Your task to perform on an android device: toggle notification dots Image 0: 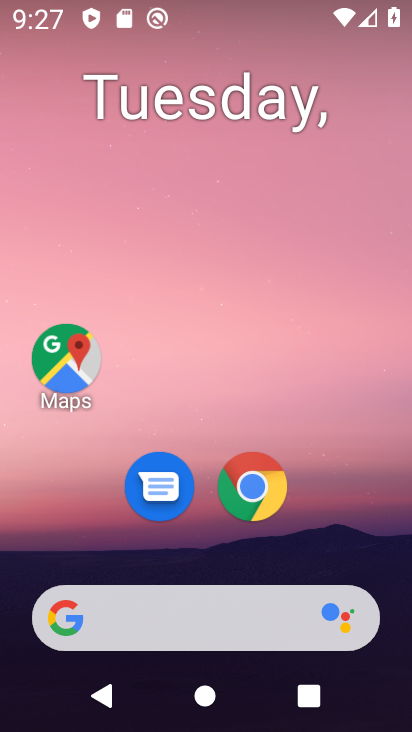
Step 0: drag from (349, 519) to (356, 78)
Your task to perform on an android device: toggle notification dots Image 1: 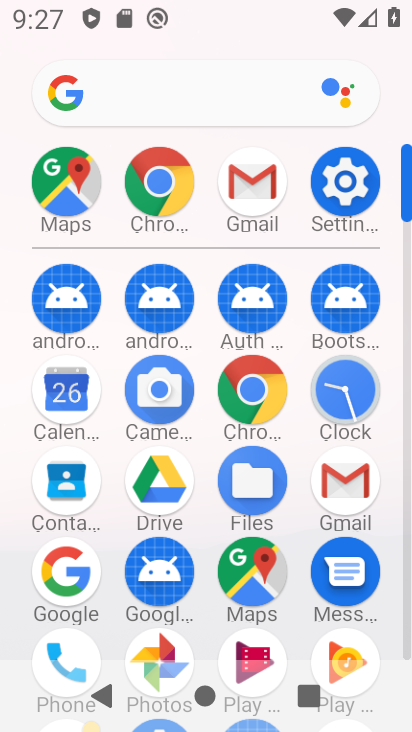
Step 1: click (346, 189)
Your task to perform on an android device: toggle notification dots Image 2: 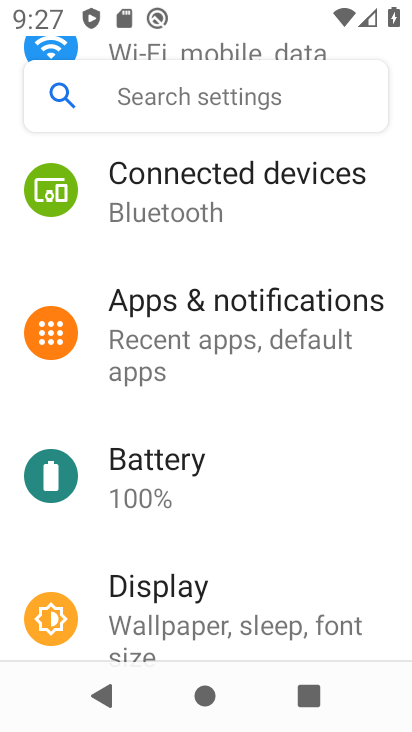
Step 2: drag from (372, 236) to (362, 312)
Your task to perform on an android device: toggle notification dots Image 3: 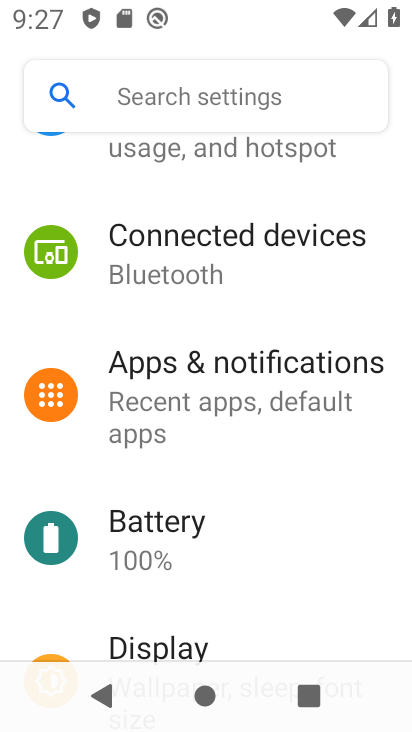
Step 3: drag from (374, 216) to (363, 336)
Your task to perform on an android device: toggle notification dots Image 4: 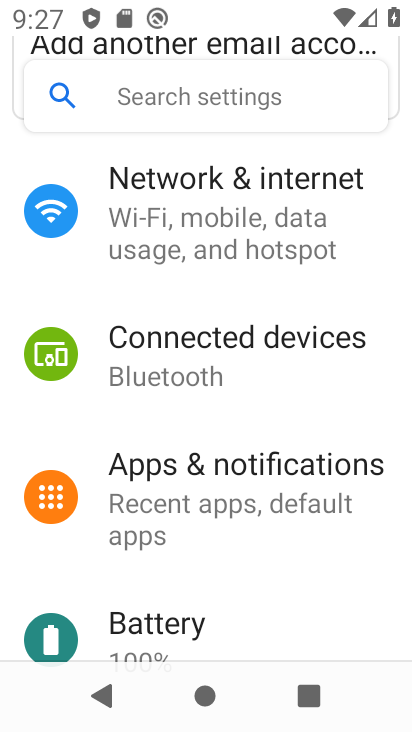
Step 4: drag from (364, 291) to (354, 381)
Your task to perform on an android device: toggle notification dots Image 5: 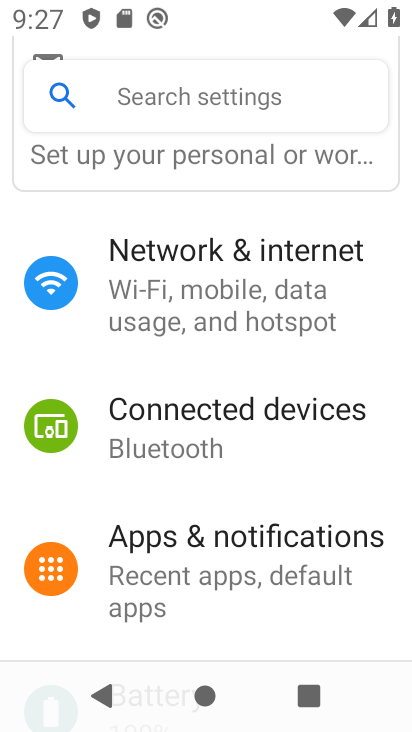
Step 5: click (262, 557)
Your task to perform on an android device: toggle notification dots Image 6: 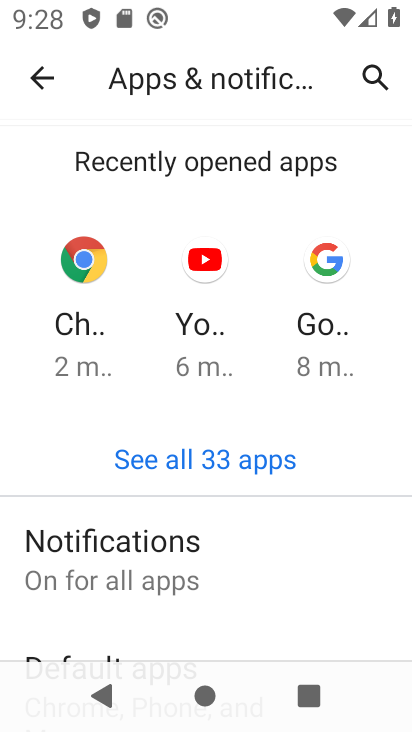
Step 6: drag from (293, 599) to (298, 512)
Your task to perform on an android device: toggle notification dots Image 7: 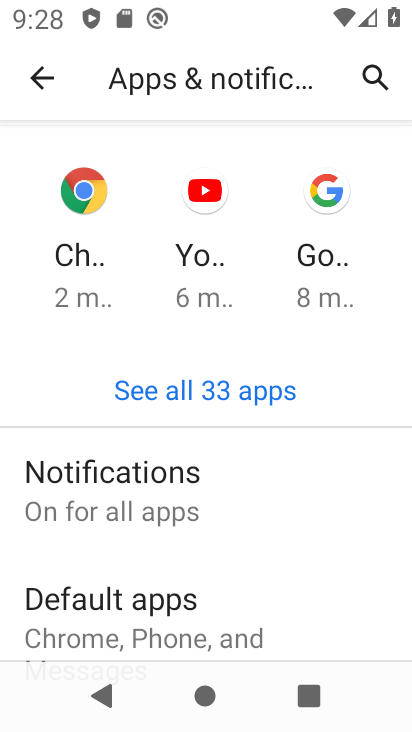
Step 7: click (248, 501)
Your task to perform on an android device: toggle notification dots Image 8: 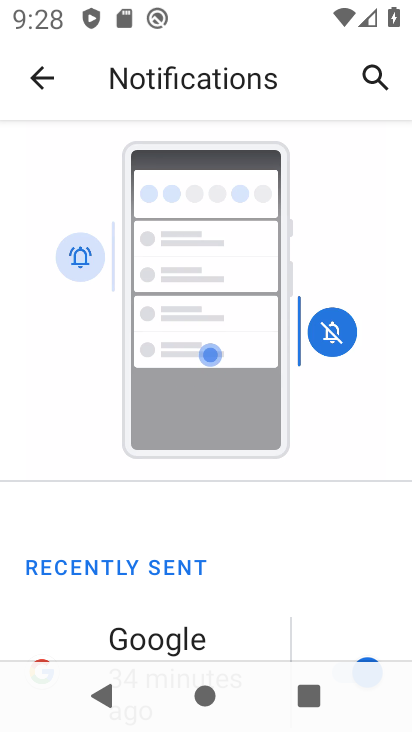
Step 8: drag from (248, 551) to (252, 467)
Your task to perform on an android device: toggle notification dots Image 9: 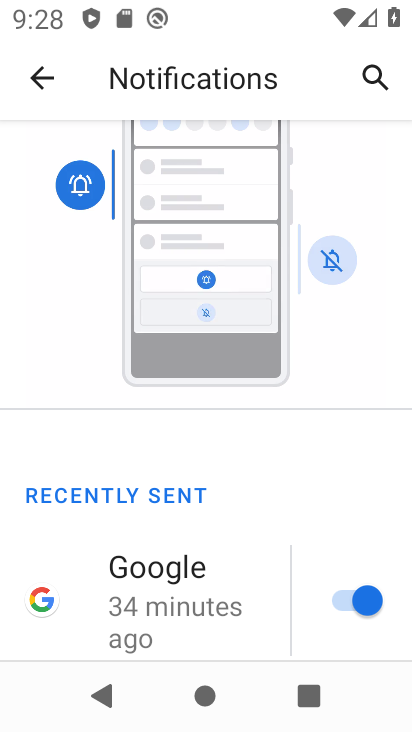
Step 9: drag from (235, 583) to (240, 485)
Your task to perform on an android device: toggle notification dots Image 10: 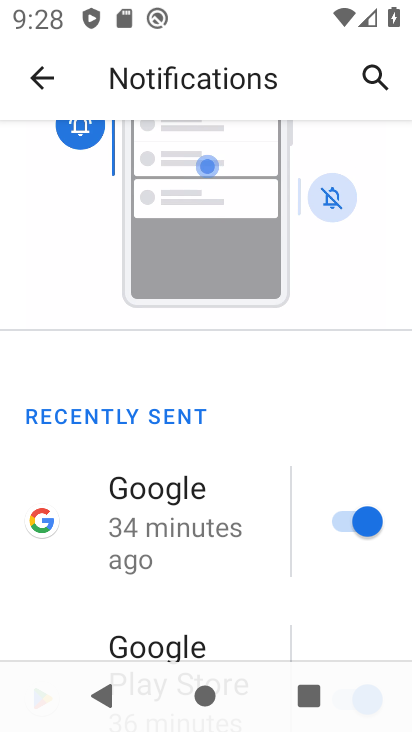
Step 10: click (222, 572)
Your task to perform on an android device: toggle notification dots Image 11: 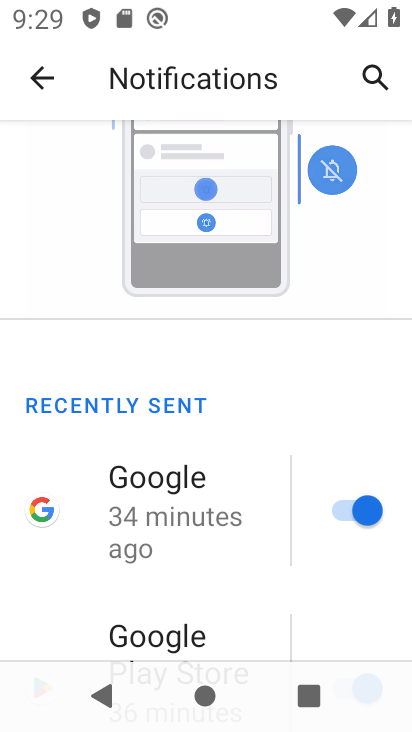
Step 11: drag from (273, 645) to (266, 430)
Your task to perform on an android device: toggle notification dots Image 12: 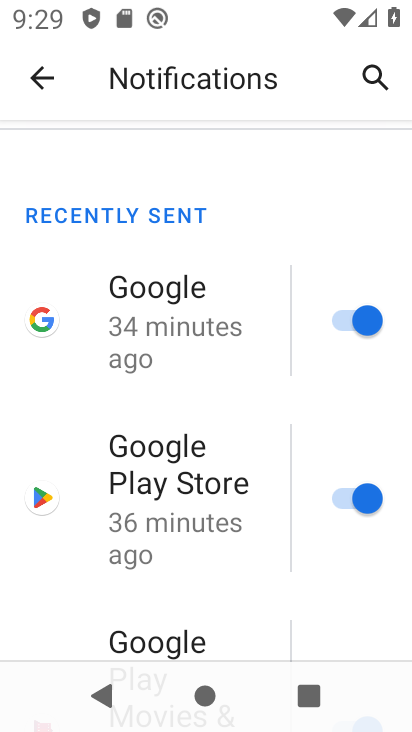
Step 12: drag from (256, 604) to (246, 421)
Your task to perform on an android device: toggle notification dots Image 13: 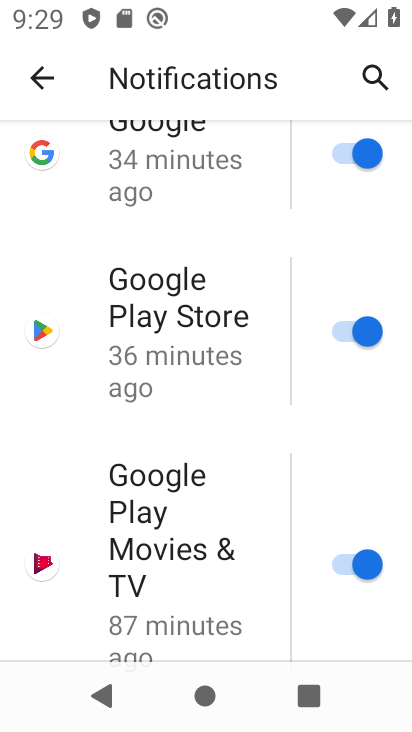
Step 13: drag from (227, 590) to (229, 427)
Your task to perform on an android device: toggle notification dots Image 14: 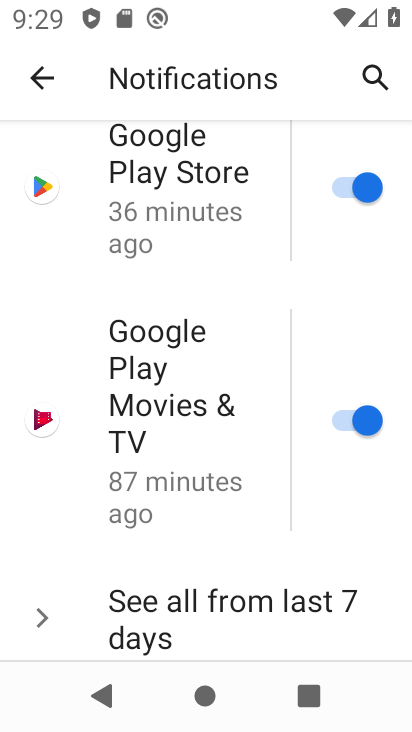
Step 14: drag from (224, 583) to (224, 421)
Your task to perform on an android device: toggle notification dots Image 15: 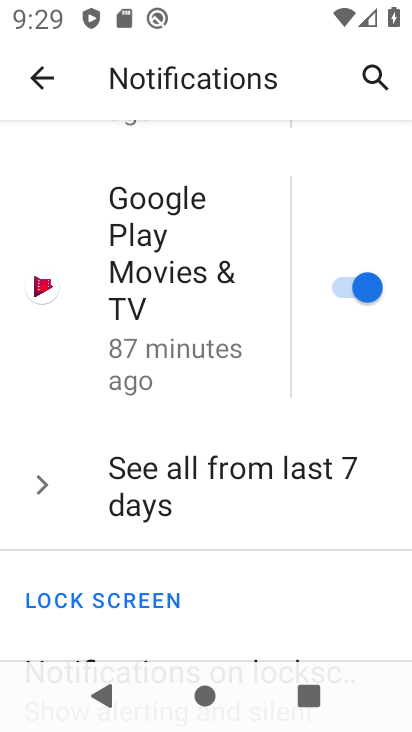
Step 15: drag from (203, 517) to (203, 417)
Your task to perform on an android device: toggle notification dots Image 16: 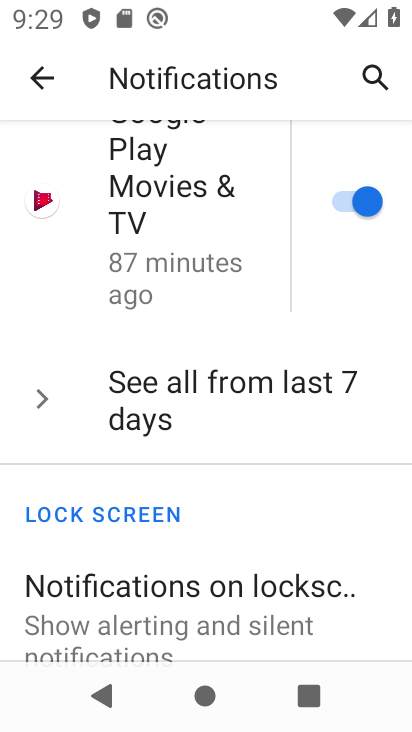
Step 16: drag from (197, 615) to (202, 528)
Your task to perform on an android device: toggle notification dots Image 17: 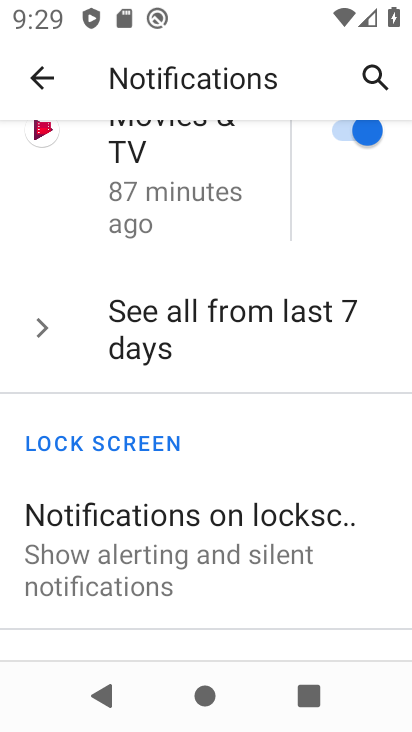
Step 17: drag from (257, 583) to (264, 384)
Your task to perform on an android device: toggle notification dots Image 18: 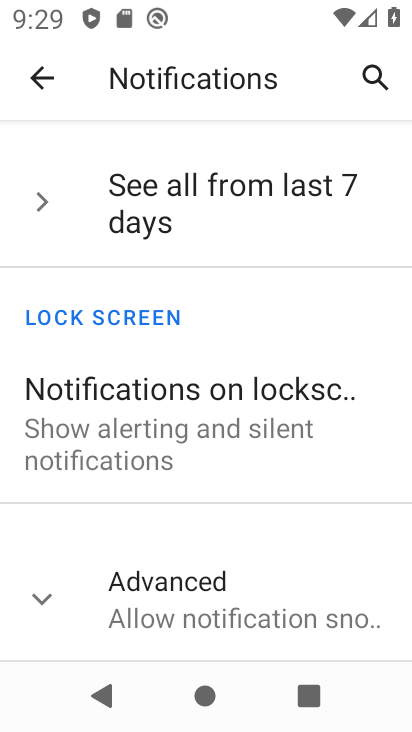
Step 18: click (259, 578)
Your task to perform on an android device: toggle notification dots Image 19: 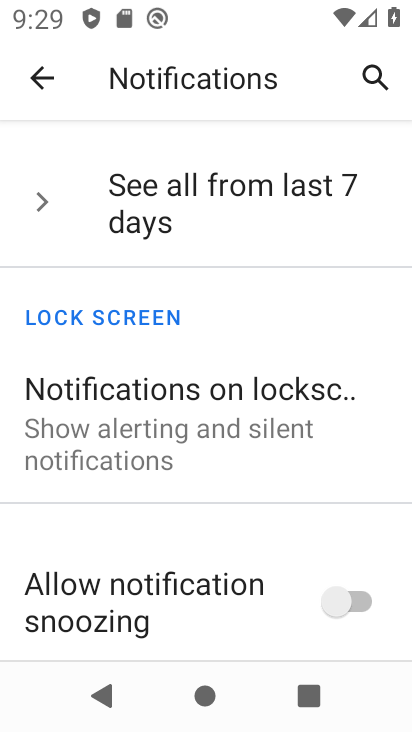
Step 19: drag from (266, 635) to (292, 423)
Your task to perform on an android device: toggle notification dots Image 20: 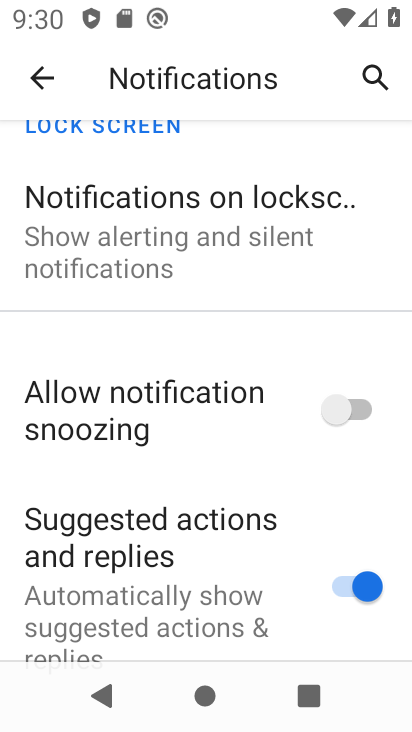
Step 20: click (345, 596)
Your task to perform on an android device: toggle notification dots Image 21: 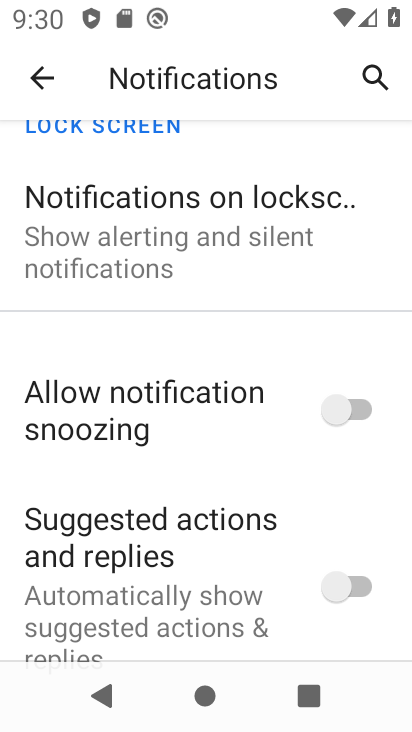
Step 21: task complete